Your task to perform on an android device: Go to network settings Image 0: 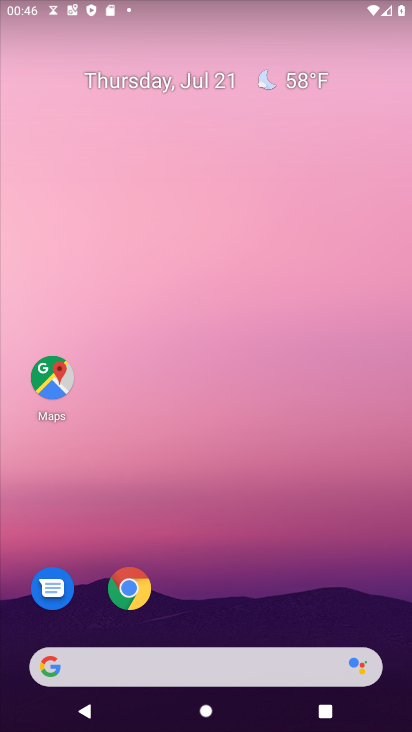
Step 0: drag from (209, 628) to (241, 1)
Your task to perform on an android device: Go to network settings Image 1: 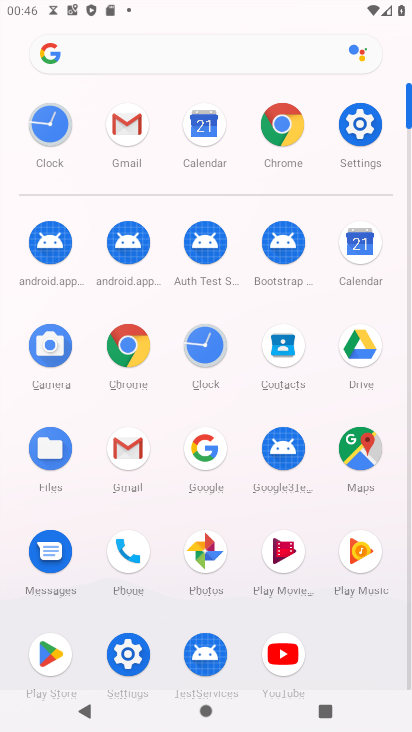
Step 1: click (112, 671)
Your task to perform on an android device: Go to network settings Image 2: 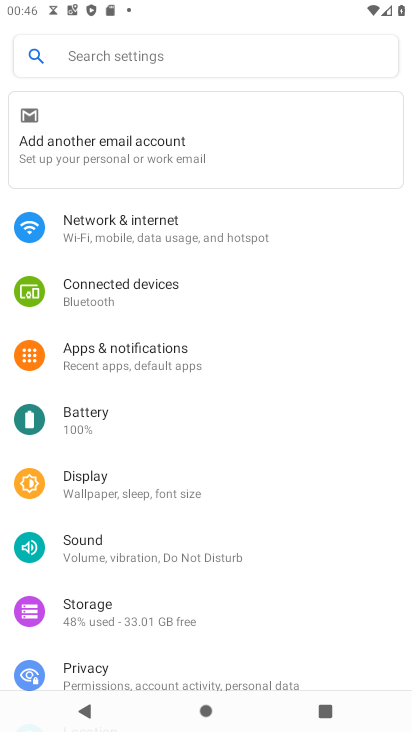
Step 2: click (167, 236)
Your task to perform on an android device: Go to network settings Image 3: 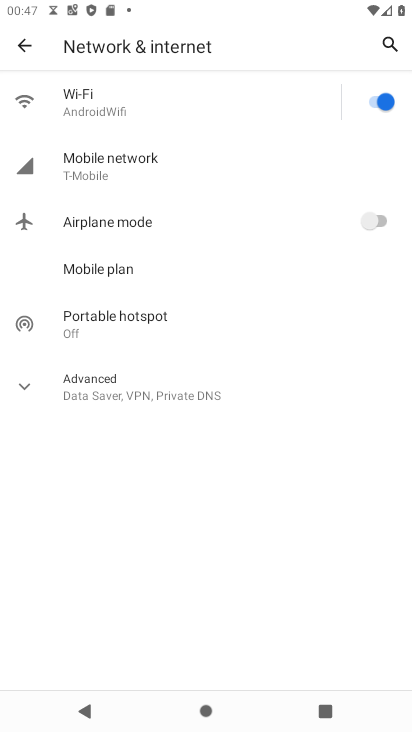
Step 3: task complete